Your task to perform on an android device: turn off notifications in google photos Image 0: 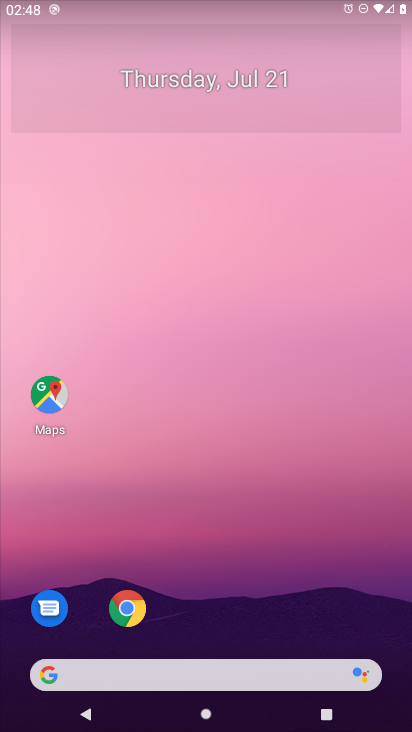
Step 0: drag from (234, 642) to (235, 74)
Your task to perform on an android device: turn off notifications in google photos Image 1: 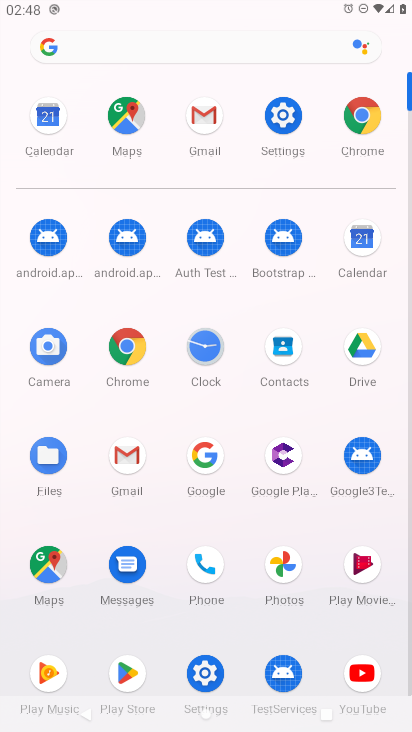
Step 1: click (280, 565)
Your task to perform on an android device: turn off notifications in google photos Image 2: 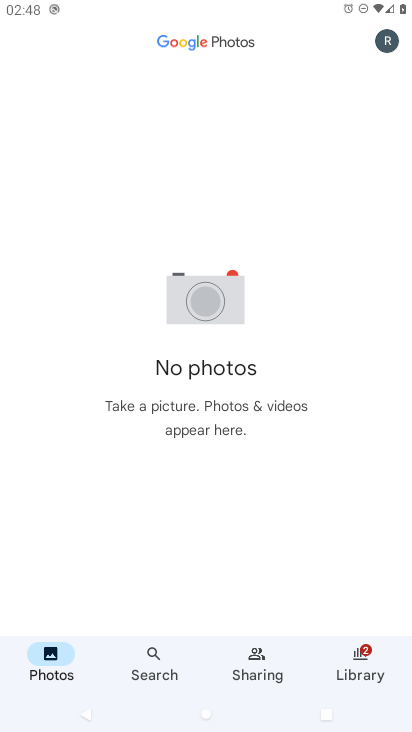
Step 2: click (387, 38)
Your task to perform on an android device: turn off notifications in google photos Image 3: 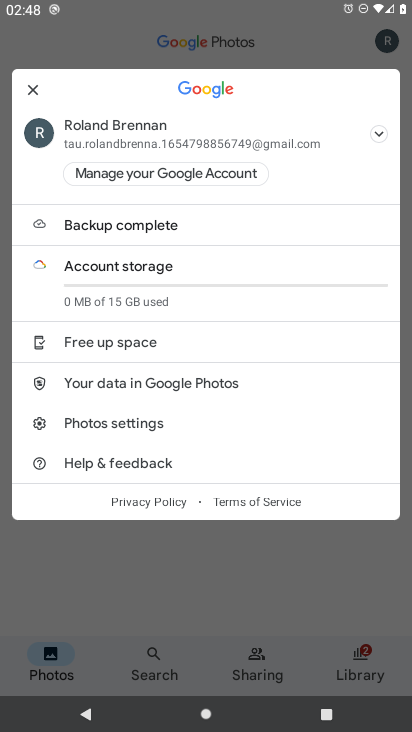
Step 3: click (106, 422)
Your task to perform on an android device: turn off notifications in google photos Image 4: 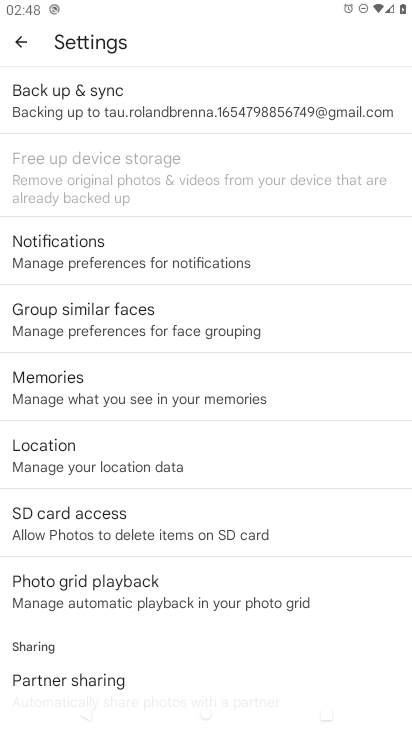
Step 4: click (71, 259)
Your task to perform on an android device: turn off notifications in google photos Image 5: 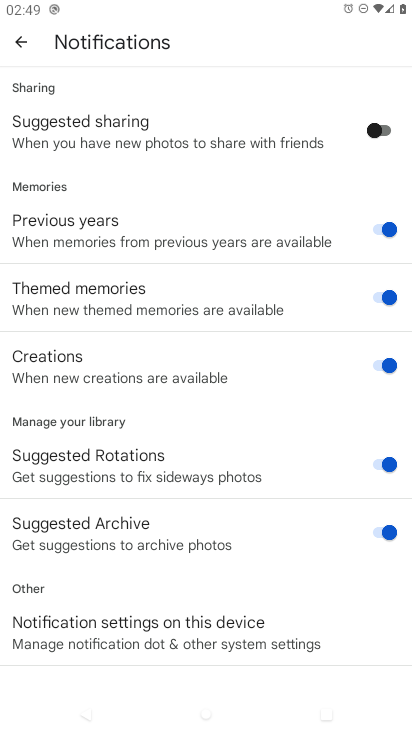
Step 5: task complete